Your task to perform on an android device: add a label to a message in the gmail app Image 0: 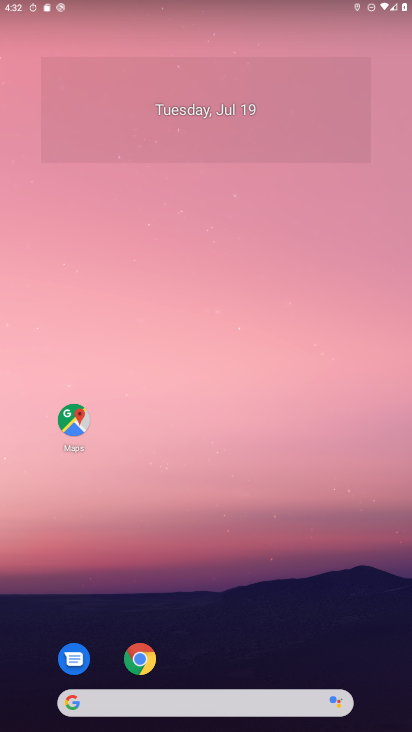
Step 0: drag from (300, 539) to (333, 87)
Your task to perform on an android device: add a label to a message in the gmail app Image 1: 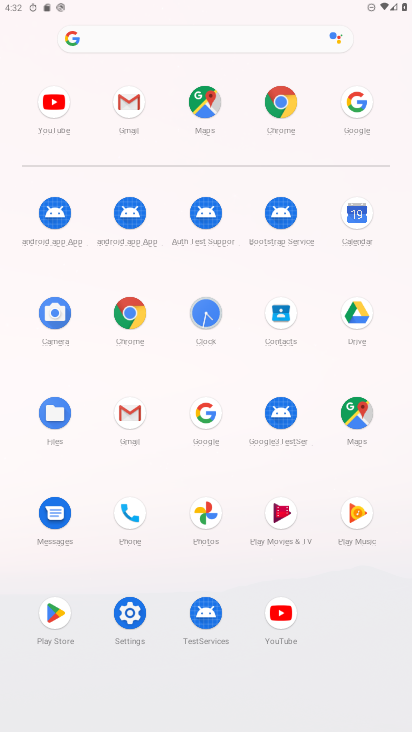
Step 1: click (138, 97)
Your task to perform on an android device: add a label to a message in the gmail app Image 2: 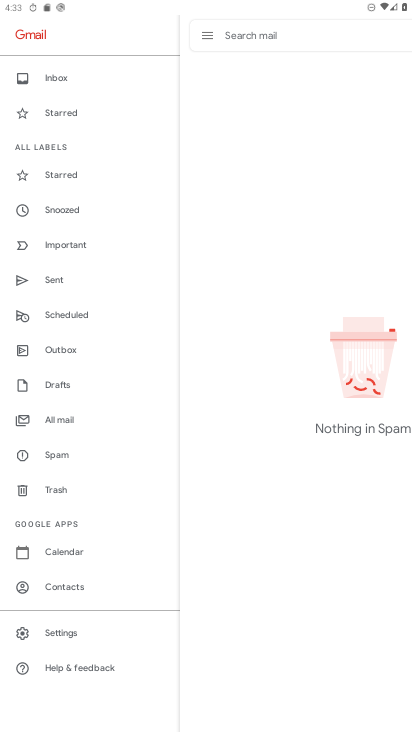
Step 2: click (71, 84)
Your task to perform on an android device: add a label to a message in the gmail app Image 3: 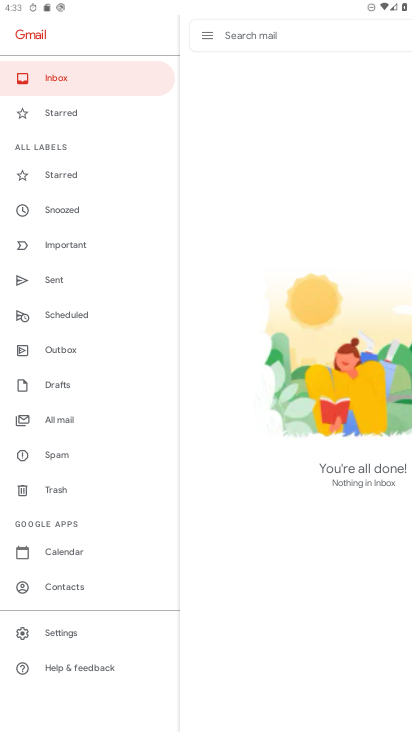
Step 3: task complete